Your task to perform on an android device: turn on priority inbox in the gmail app Image 0: 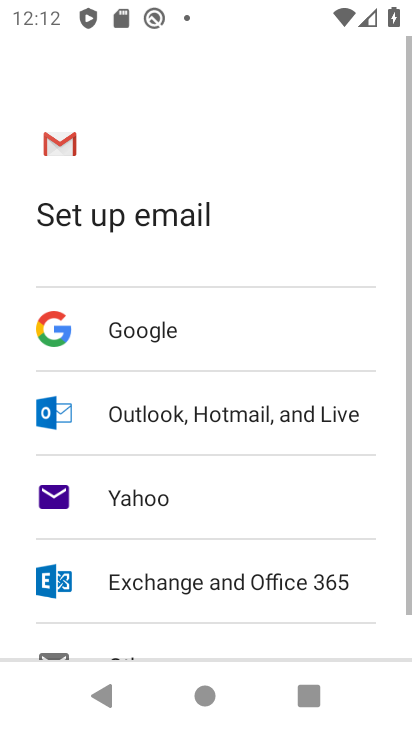
Step 0: press back button
Your task to perform on an android device: turn on priority inbox in the gmail app Image 1: 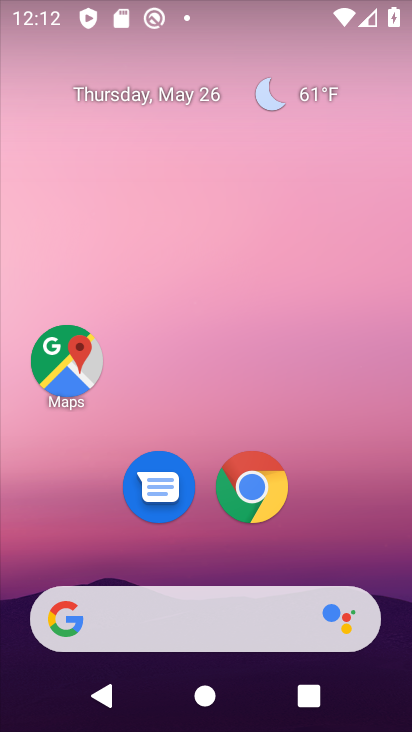
Step 1: drag from (263, 677) to (176, 405)
Your task to perform on an android device: turn on priority inbox in the gmail app Image 2: 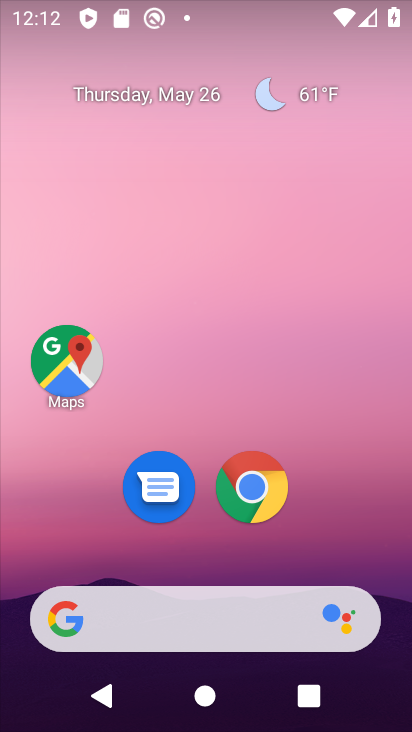
Step 2: drag from (232, 498) to (239, 282)
Your task to perform on an android device: turn on priority inbox in the gmail app Image 3: 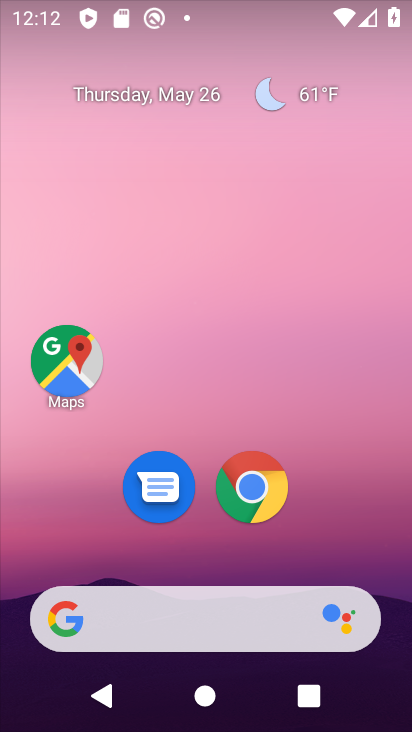
Step 3: drag from (251, 636) to (268, 145)
Your task to perform on an android device: turn on priority inbox in the gmail app Image 4: 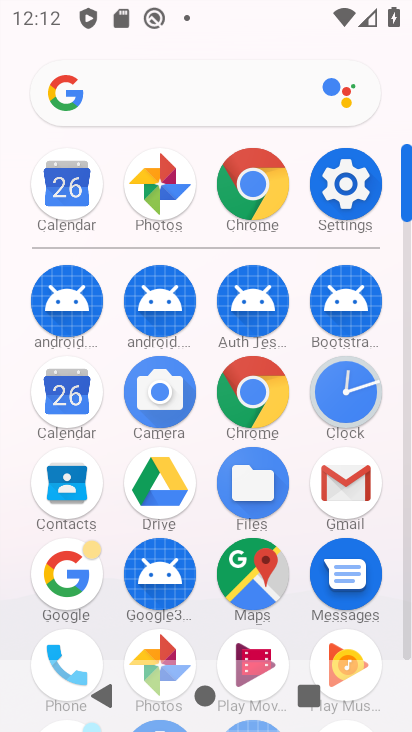
Step 4: drag from (305, 477) to (358, 476)
Your task to perform on an android device: turn on priority inbox in the gmail app Image 5: 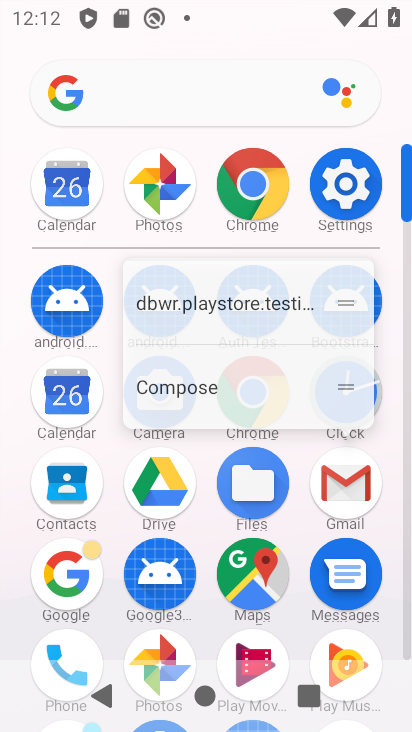
Step 5: click (357, 476)
Your task to perform on an android device: turn on priority inbox in the gmail app Image 6: 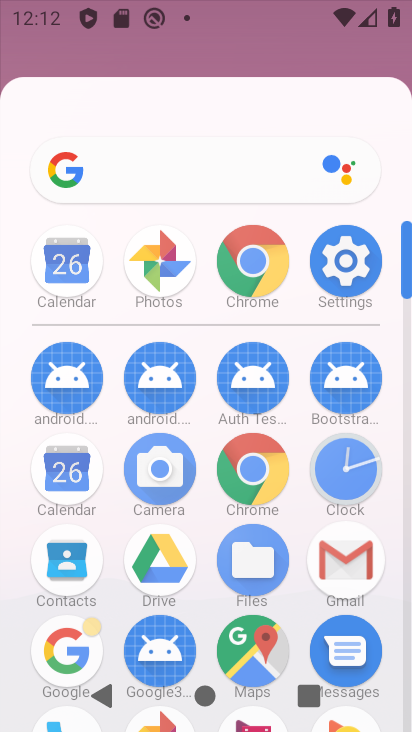
Step 6: click (356, 477)
Your task to perform on an android device: turn on priority inbox in the gmail app Image 7: 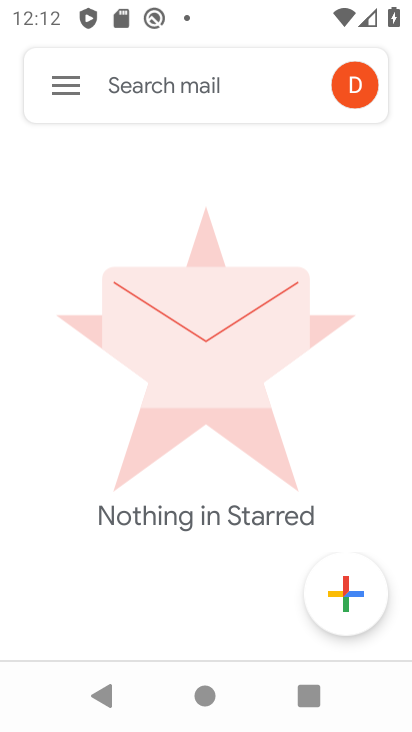
Step 7: click (82, 89)
Your task to perform on an android device: turn on priority inbox in the gmail app Image 8: 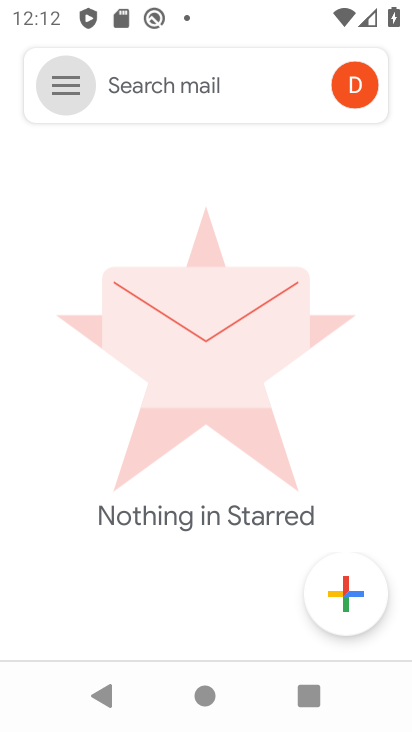
Step 8: click (82, 89)
Your task to perform on an android device: turn on priority inbox in the gmail app Image 9: 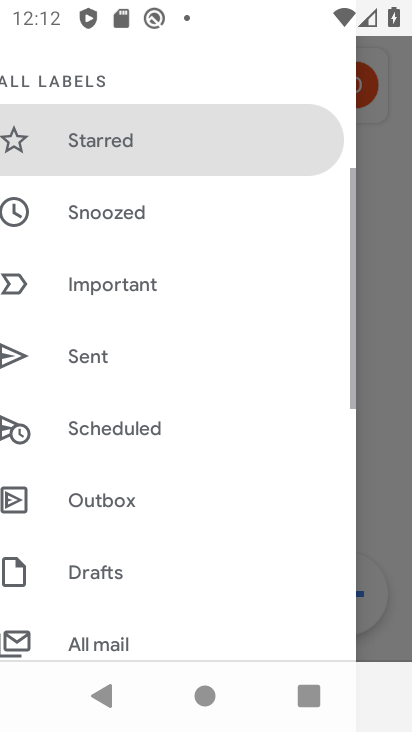
Step 9: click (82, 89)
Your task to perform on an android device: turn on priority inbox in the gmail app Image 10: 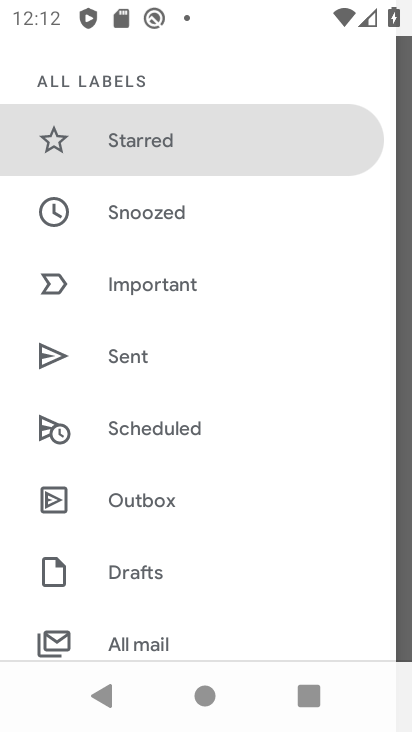
Step 10: drag from (125, 564) to (104, 176)
Your task to perform on an android device: turn on priority inbox in the gmail app Image 11: 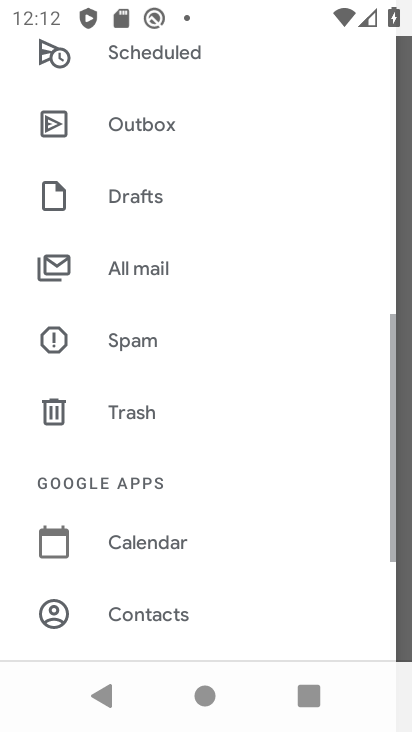
Step 11: drag from (156, 484) to (108, 167)
Your task to perform on an android device: turn on priority inbox in the gmail app Image 12: 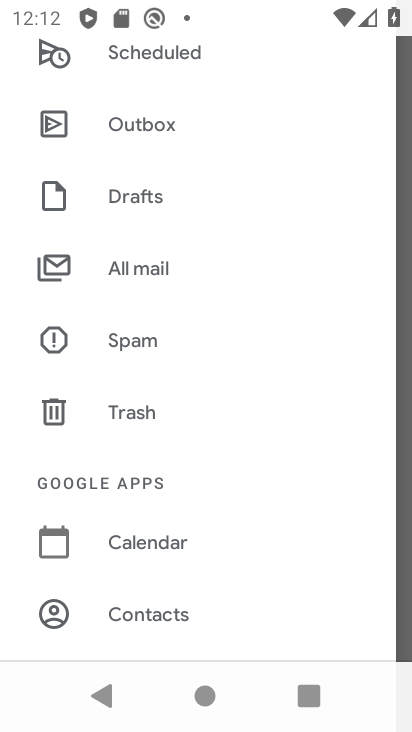
Step 12: drag from (116, 397) to (107, 87)
Your task to perform on an android device: turn on priority inbox in the gmail app Image 13: 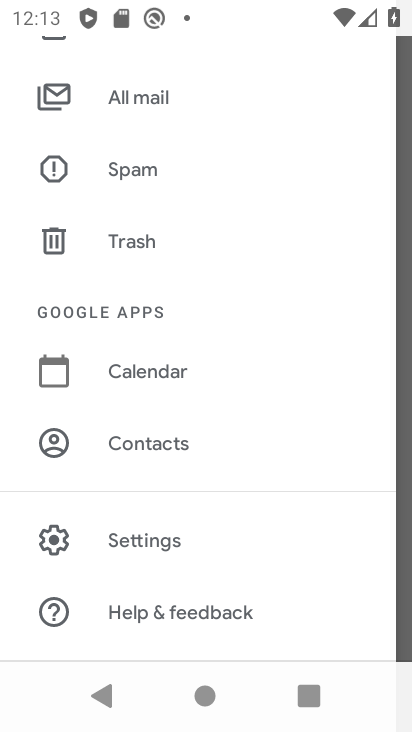
Step 13: click (159, 532)
Your task to perform on an android device: turn on priority inbox in the gmail app Image 14: 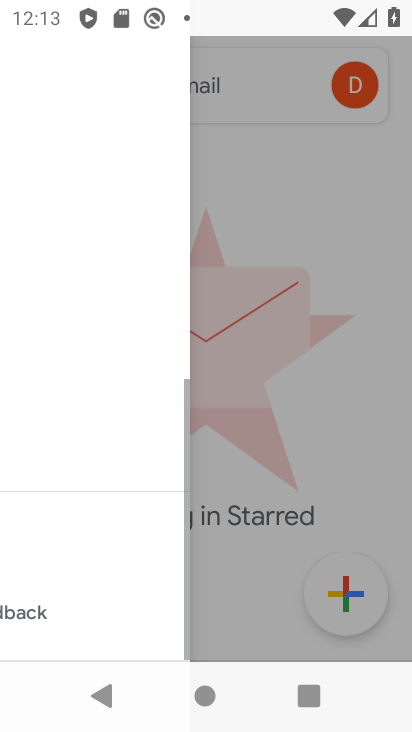
Step 14: click (150, 533)
Your task to perform on an android device: turn on priority inbox in the gmail app Image 15: 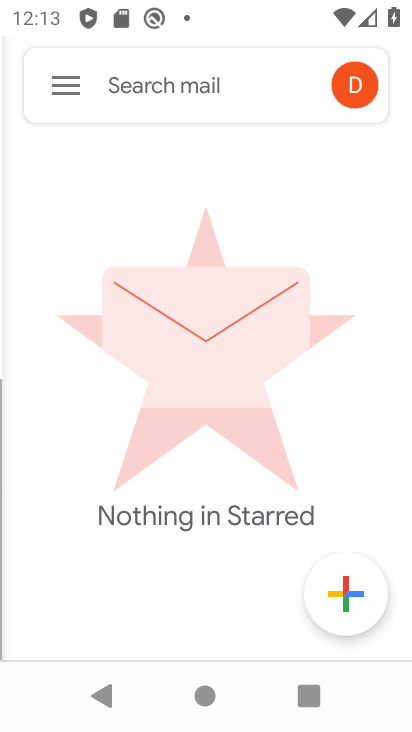
Step 15: click (150, 533)
Your task to perform on an android device: turn on priority inbox in the gmail app Image 16: 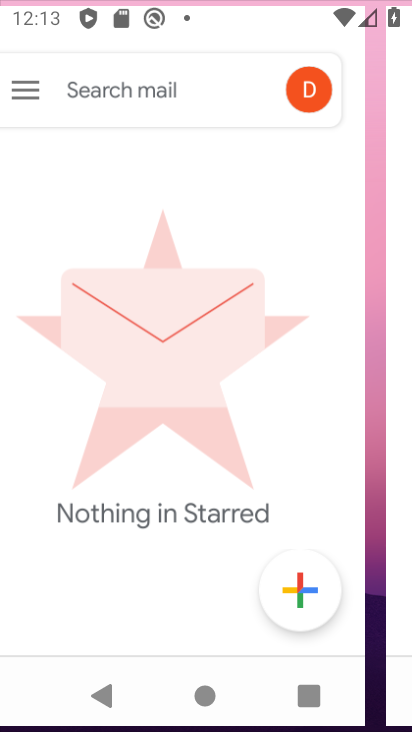
Step 16: click (150, 533)
Your task to perform on an android device: turn on priority inbox in the gmail app Image 17: 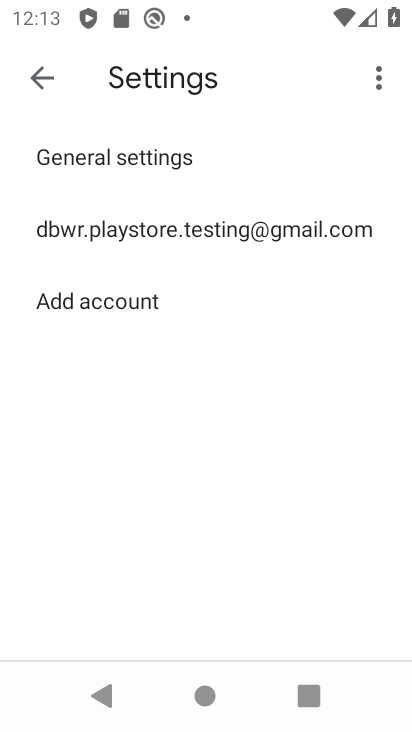
Step 17: click (162, 231)
Your task to perform on an android device: turn on priority inbox in the gmail app Image 18: 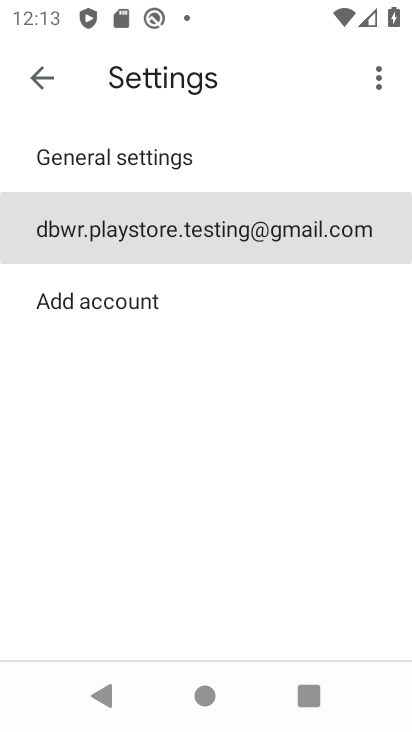
Step 18: click (162, 231)
Your task to perform on an android device: turn on priority inbox in the gmail app Image 19: 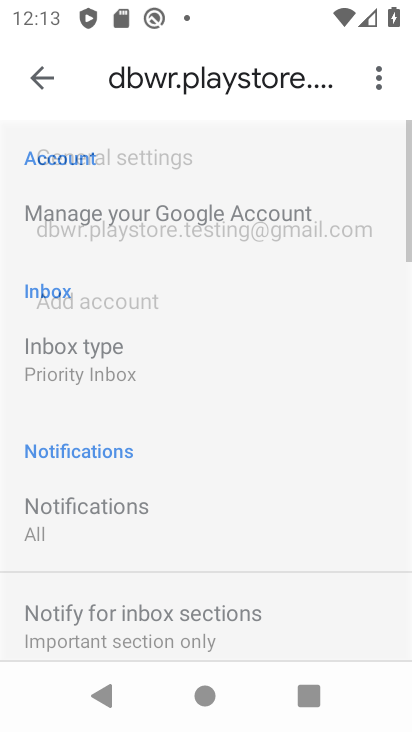
Step 19: click (163, 231)
Your task to perform on an android device: turn on priority inbox in the gmail app Image 20: 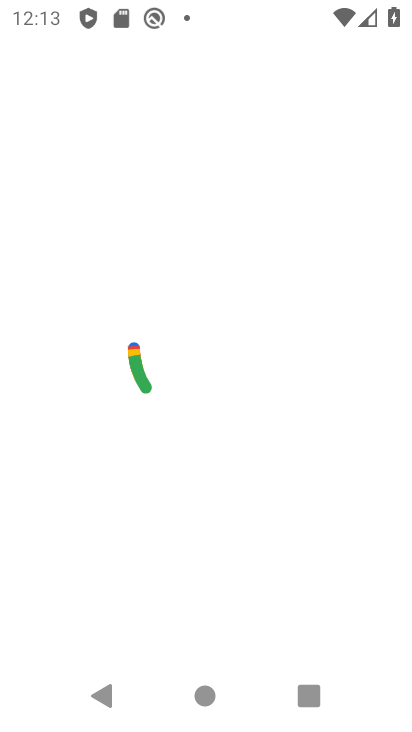
Step 20: press back button
Your task to perform on an android device: turn on priority inbox in the gmail app Image 21: 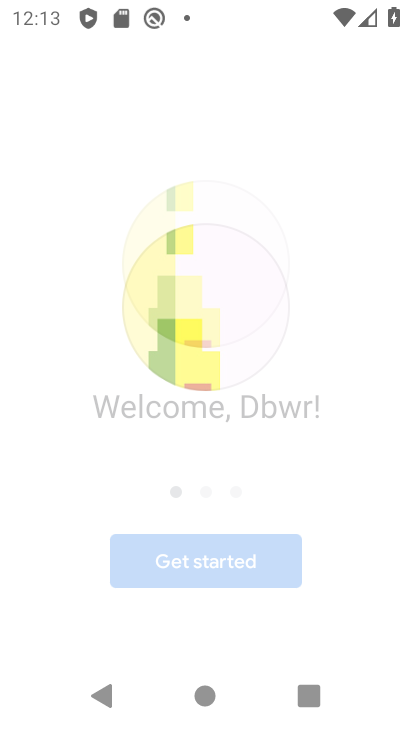
Step 21: press home button
Your task to perform on an android device: turn on priority inbox in the gmail app Image 22: 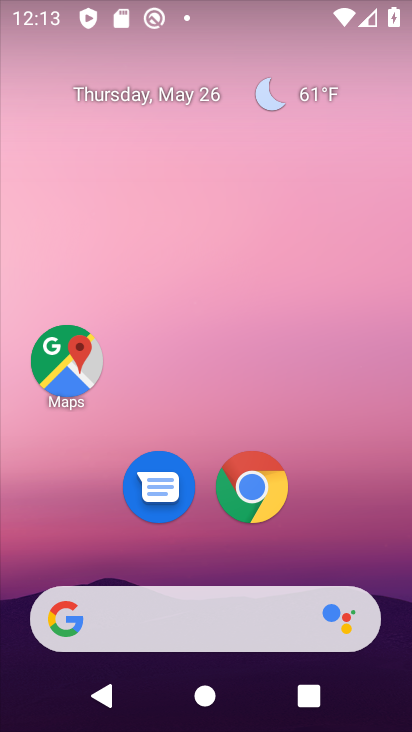
Step 22: drag from (271, 653) to (208, 19)
Your task to perform on an android device: turn on priority inbox in the gmail app Image 23: 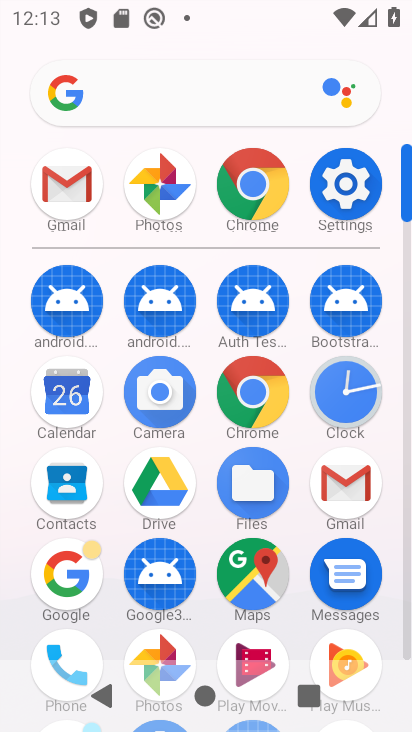
Step 23: click (334, 481)
Your task to perform on an android device: turn on priority inbox in the gmail app Image 24: 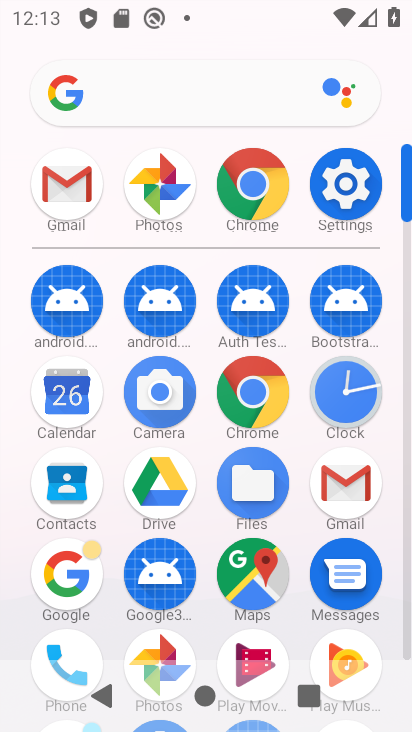
Step 24: click (334, 481)
Your task to perform on an android device: turn on priority inbox in the gmail app Image 25: 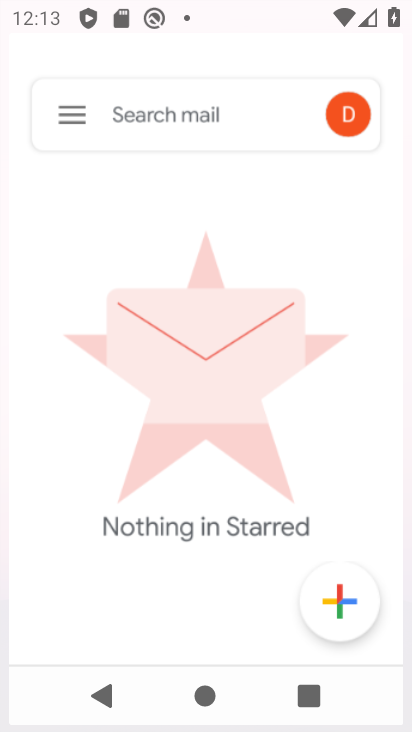
Step 25: click (334, 481)
Your task to perform on an android device: turn on priority inbox in the gmail app Image 26: 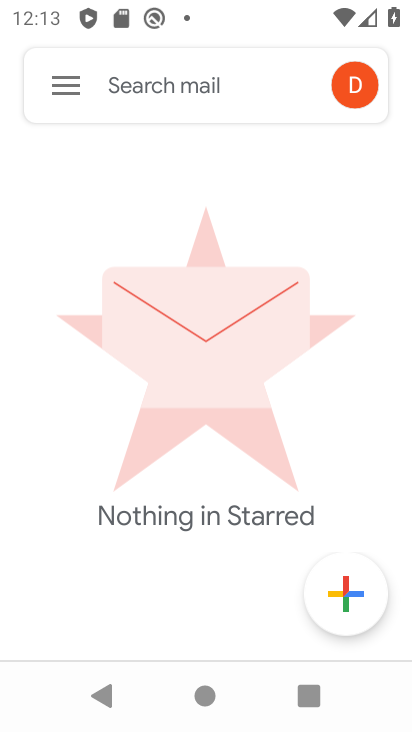
Step 26: drag from (69, 70) to (89, 227)
Your task to perform on an android device: turn on priority inbox in the gmail app Image 27: 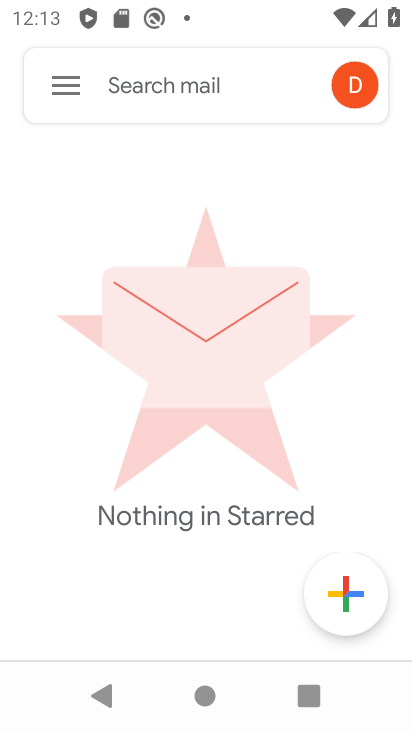
Step 27: click (73, 92)
Your task to perform on an android device: turn on priority inbox in the gmail app Image 28: 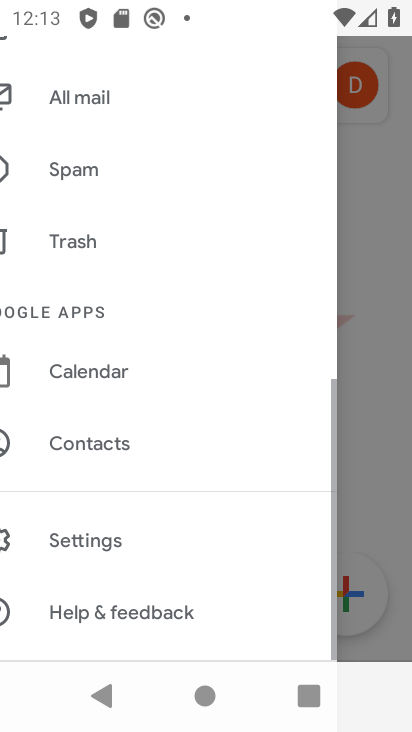
Step 28: click (73, 92)
Your task to perform on an android device: turn on priority inbox in the gmail app Image 29: 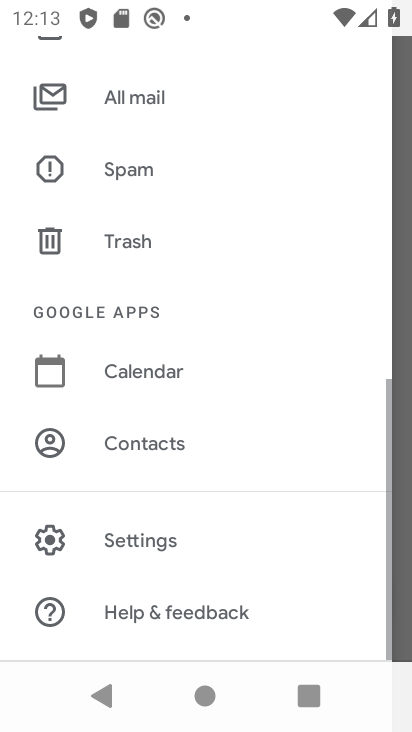
Step 29: click (73, 92)
Your task to perform on an android device: turn on priority inbox in the gmail app Image 30: 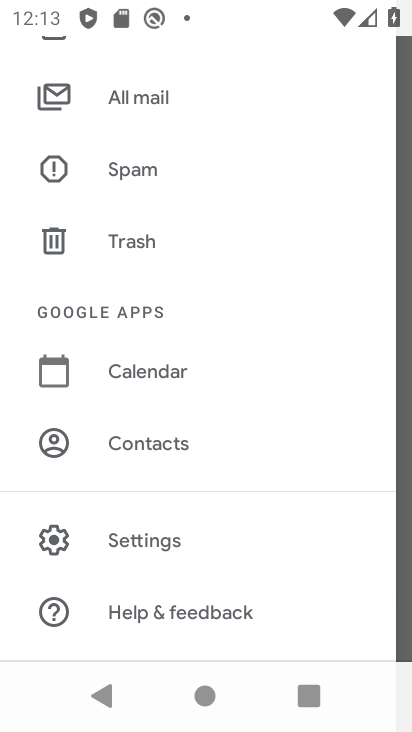
Step 30: click (144, 529)
Your task to perform on an android device: turn on priority inbox in the gmail app Image 31: 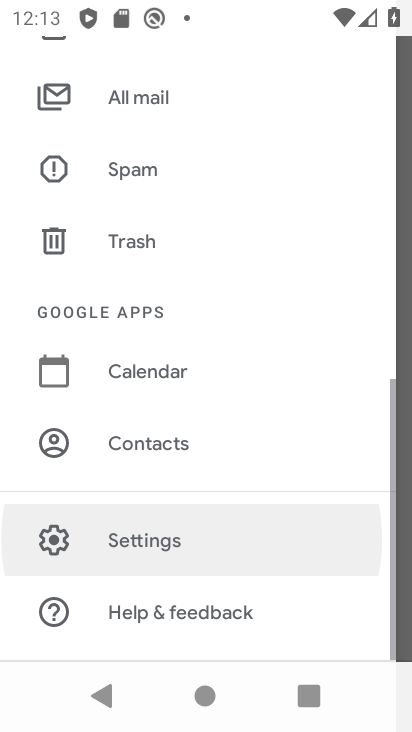
Step 31: click (144, 529)
Your task to perform on an android device: turn on priority inbox in the gmail app Image 32: 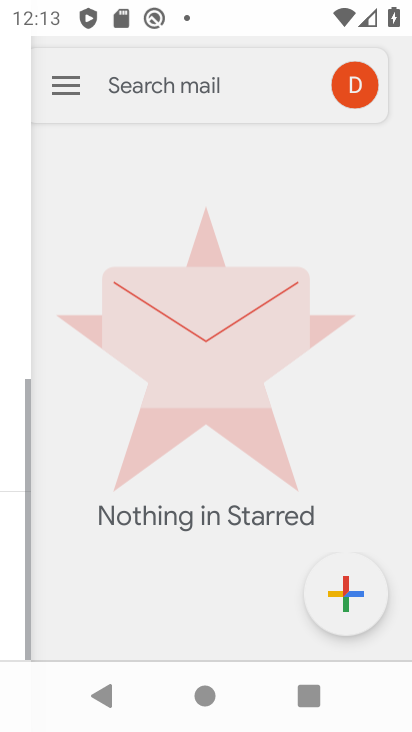
Step 32: click (145, 528)
Your task to perform on an android device: turn on priority inbox in the gmail app Image 33: 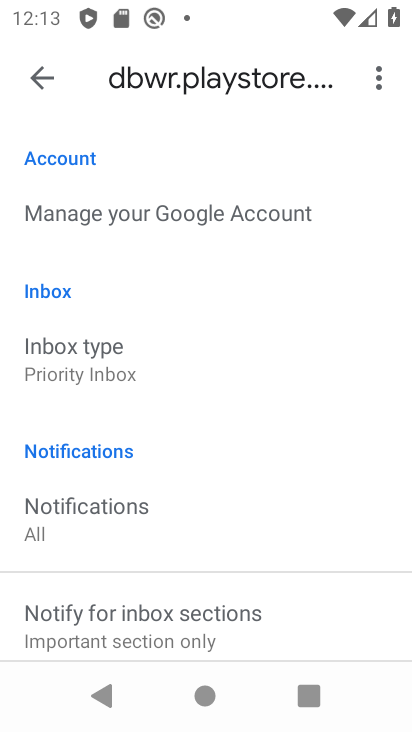
Step 33: task complete